Your task to perform on an android device: What's on the menu at McDonalds? Image 0: 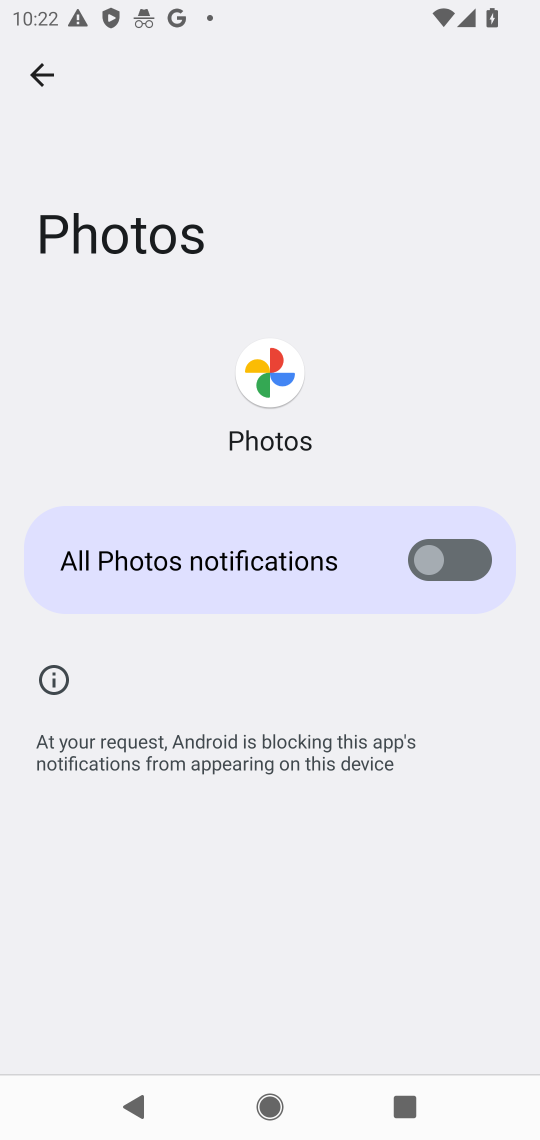
Step 0: press home button
Your task to perform on an android device: What's on the menu at McDonalds? Image 1: 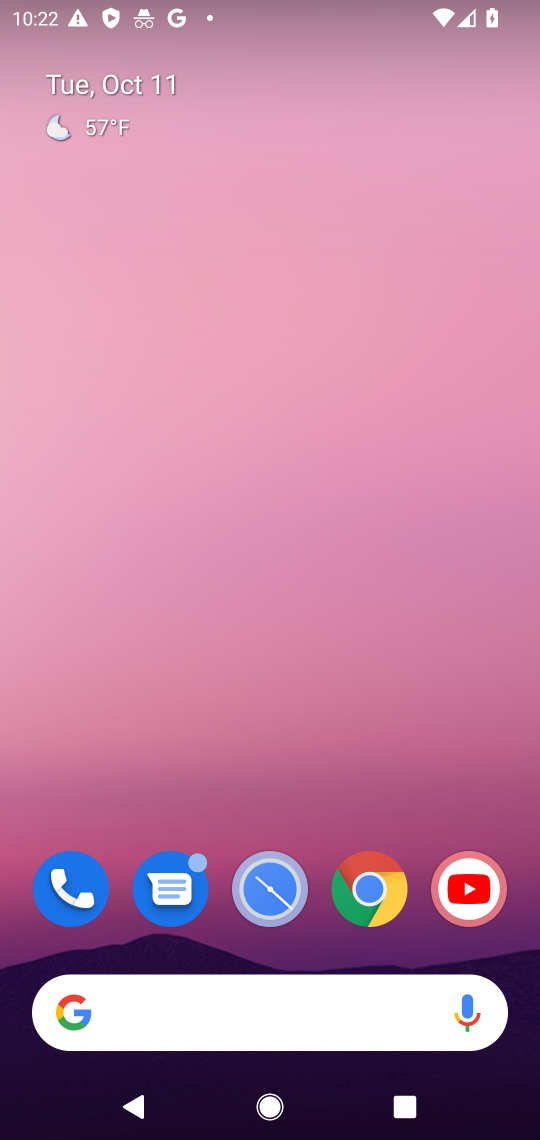
Step 1: click (279, 1007)
Your task to perform on an android device: What's on the menu at McDonalds? Image 2: 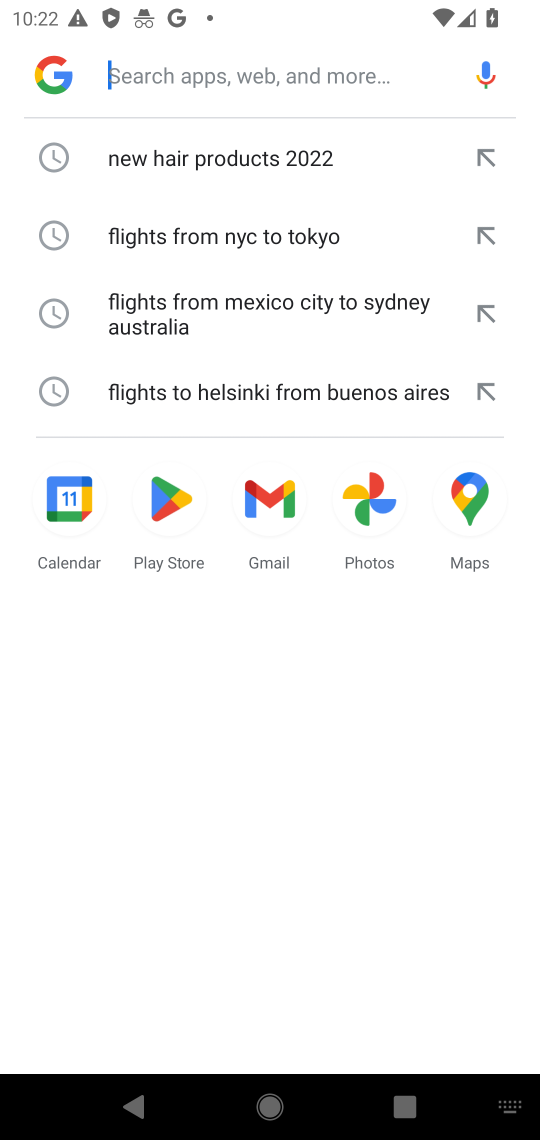
Step 2: click (173, 67)
Your task to perform on an android device: What's on the menu at McDonalds? Image 3: 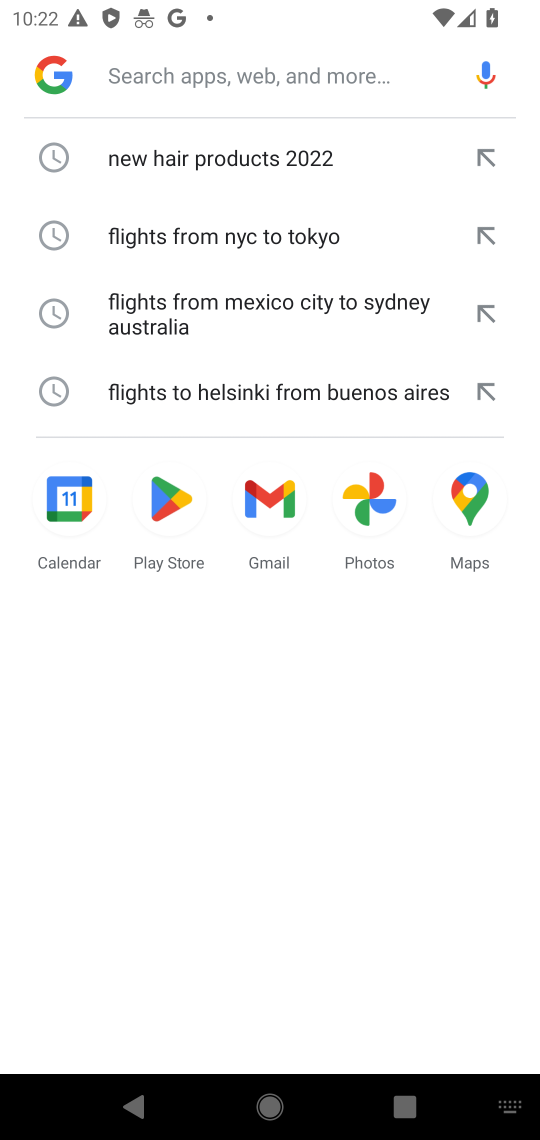
Step 3: type "menu at McDonalds?"
Your task to perform on an android device: What's on the menu at McDonalds? Image 4: 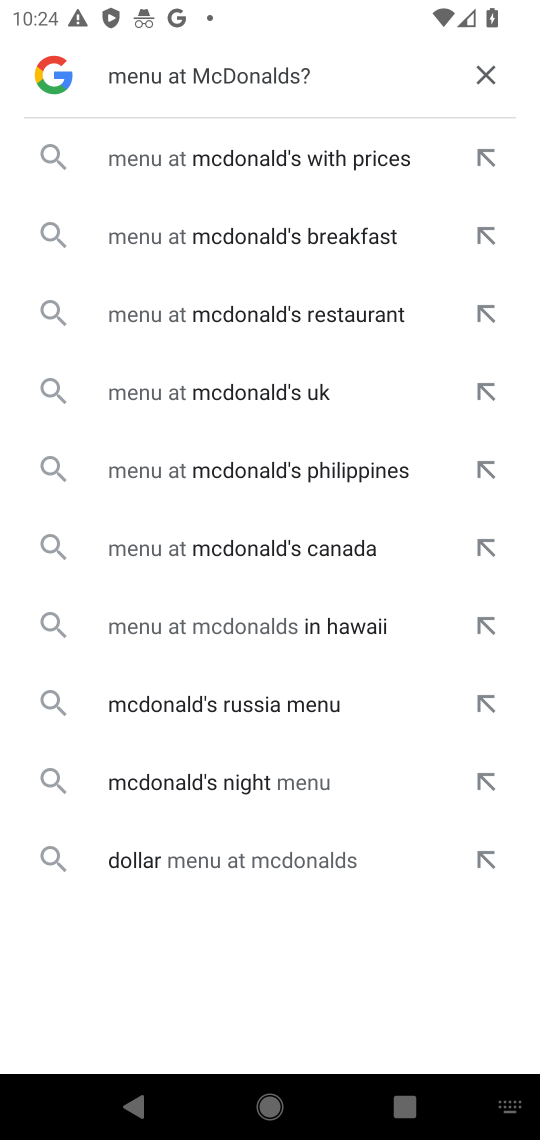
Step 4: click (260, 163)
Your task to perform on an android device: What's on the menu at McDonalds? Image 5: 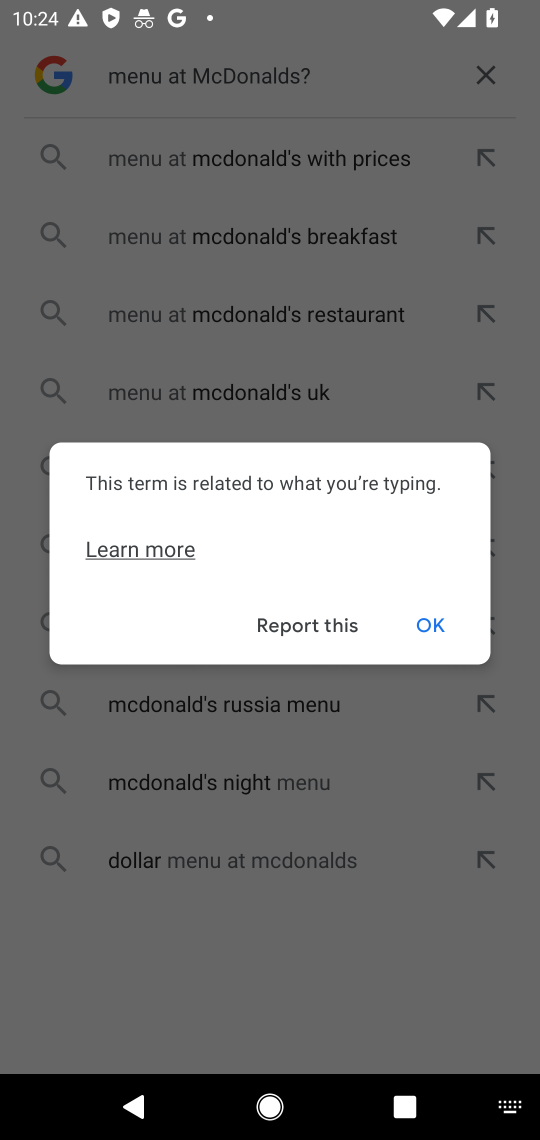
Step 5: click (405, 614)
Your task to perform on an android device: What's on the menu at McDonalds? Image 6: 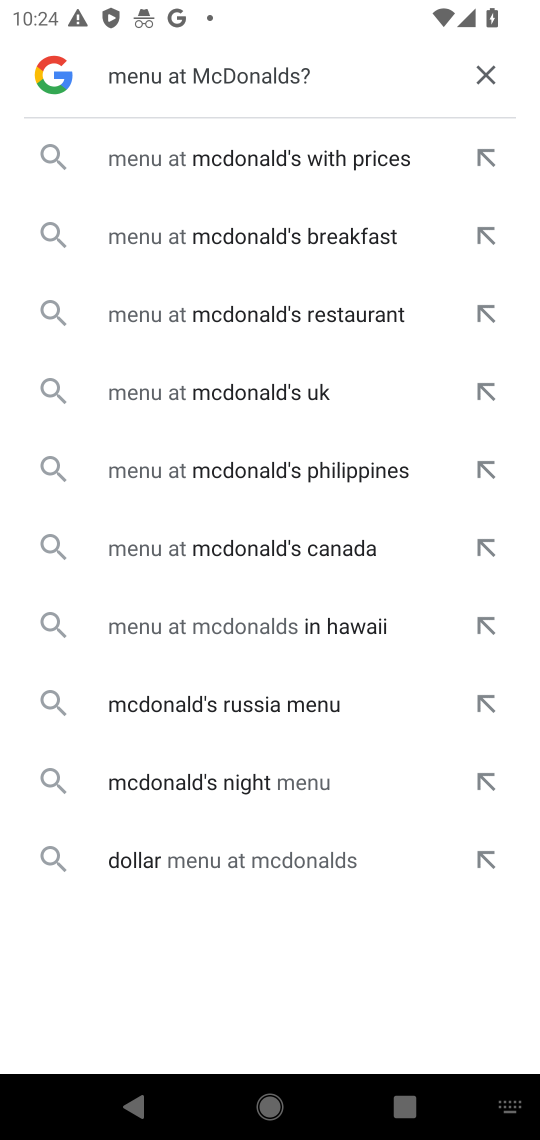
Step 6: click (139, 162)
Your task to perform on an android device: What's on the menu at McDonalds? Image 7: 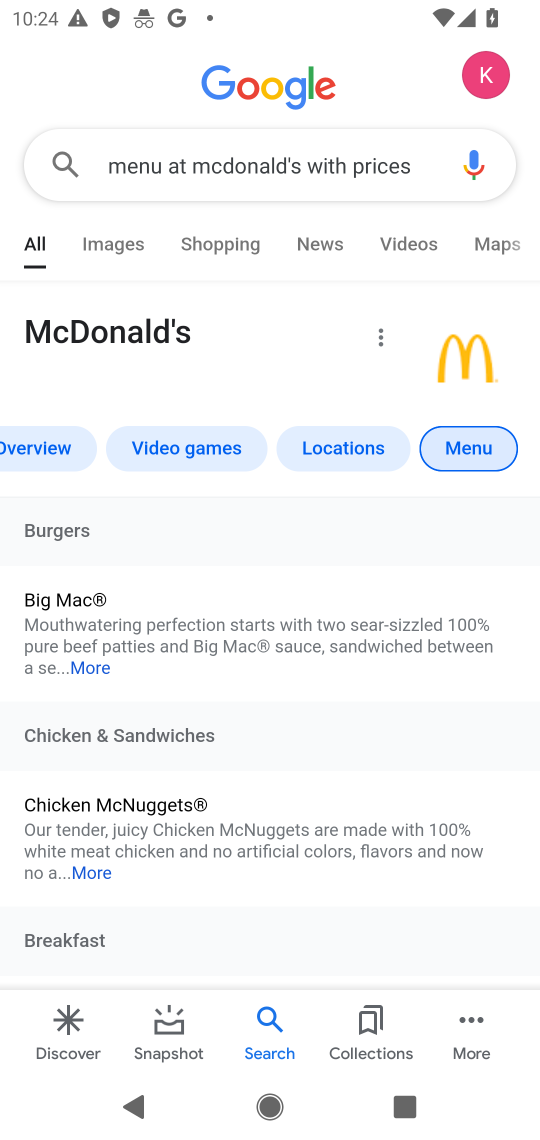
Step 7: task complete